Your task to perform on an android device: Go to Maps Image 0: 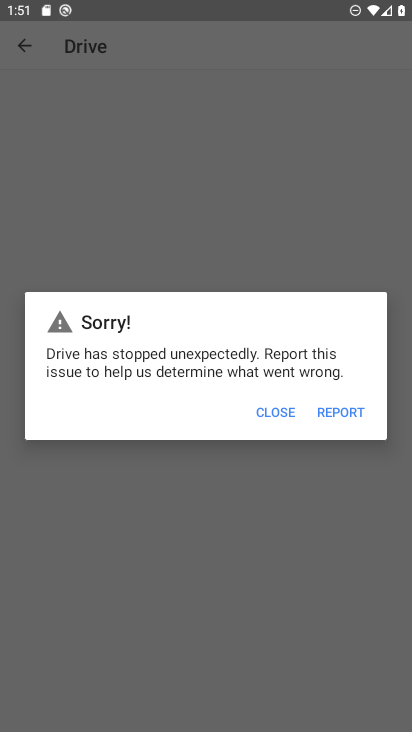
Step 0: press home button
Your task to perform on an android device: Go to Maps Image 1: 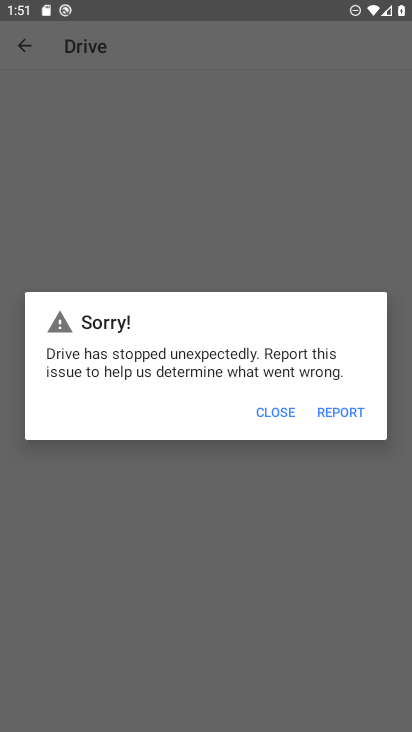
Step 1: press home button
Your task to perform on an android device: Go to Maps Image 2: 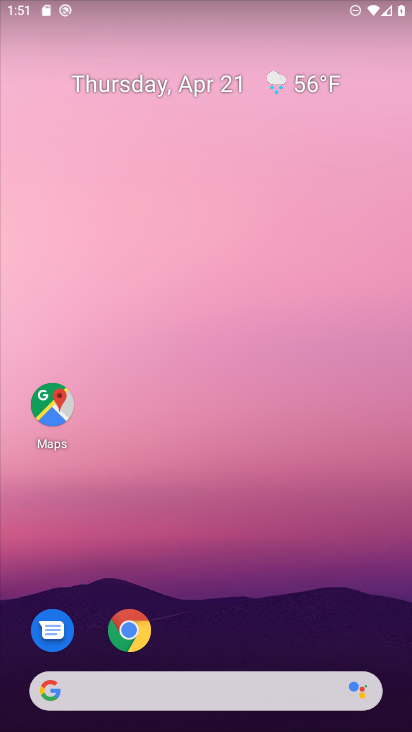
Step 2: click (53, 400)
Your task to perform on an android device: Go to Maps Image 3: 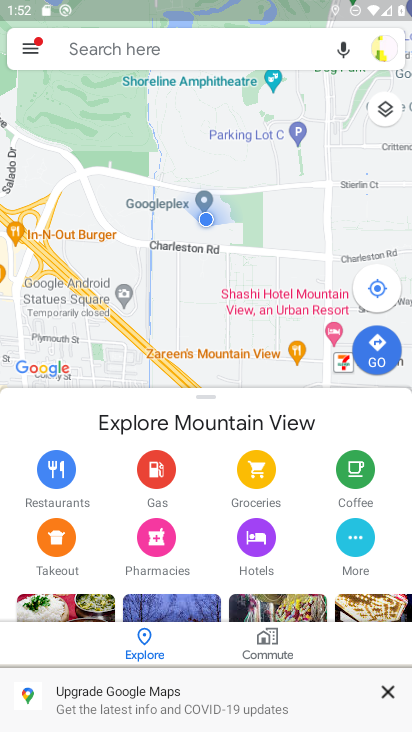
Step 3: task complete